Your task to perform on an android device: turn off sleep mode Image 0: 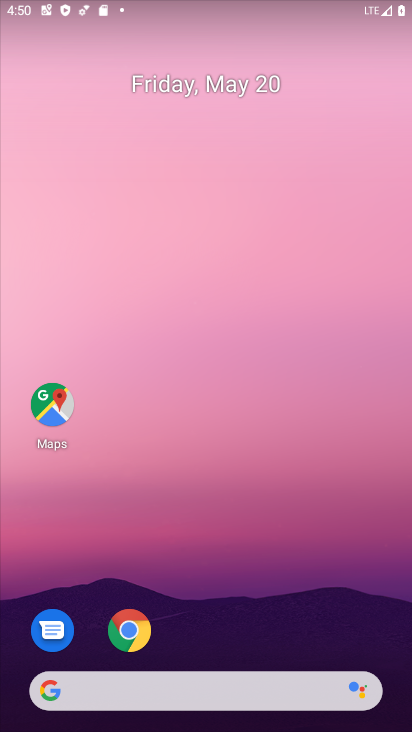
Step 0: drag from (262, 611) to (341, 62)
Your task to perform on an android device: turn off sleep mode Image 1: 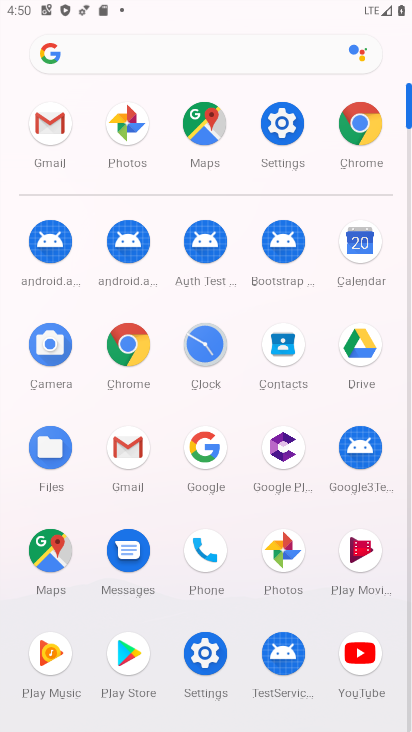
Step 1: click (277, 126)
Your task to perform on an android device: turn off sleep mode Image 2: 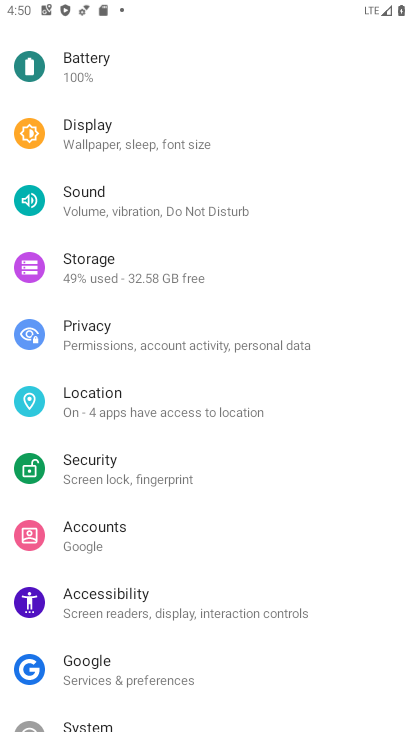
Step 2: click (129, 141)
Your task to perform on an android device: turn off sleep mode Image 3: 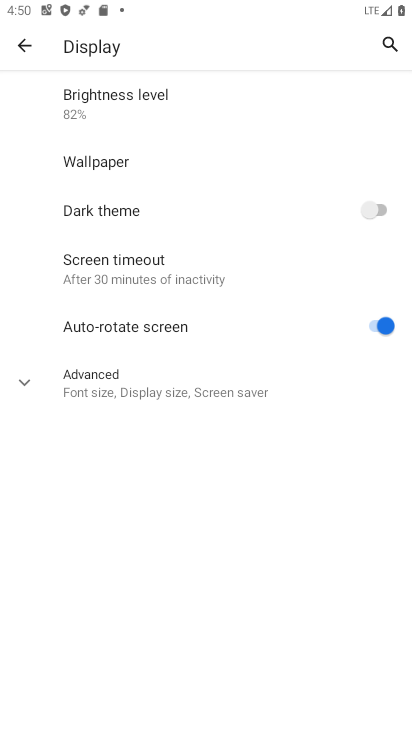
Step 3: click (22, 385)
Your task to perform on an android device: turn off sleep mode Image 4: 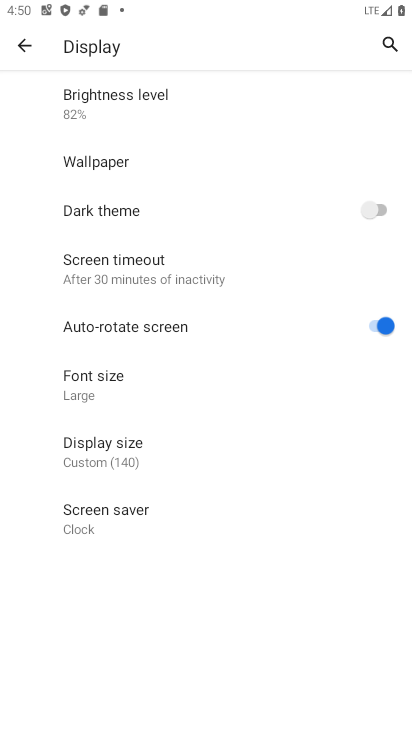
Step 4: task complete